Your task to perform on an android device: Open location settings Image 0: 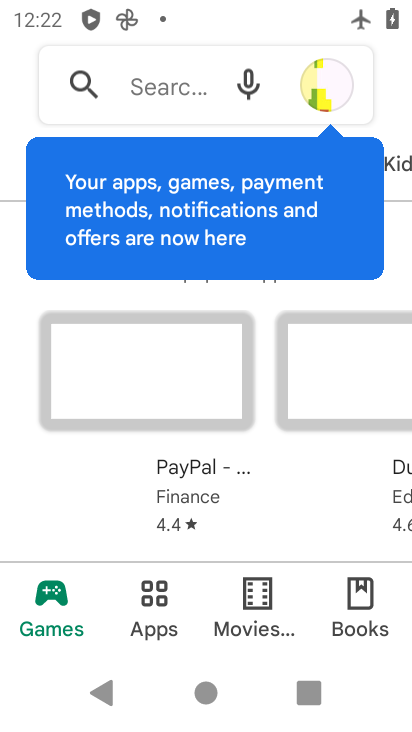
Step 0: press home button
Your task to perform on an android device: Open location settings Image 1: 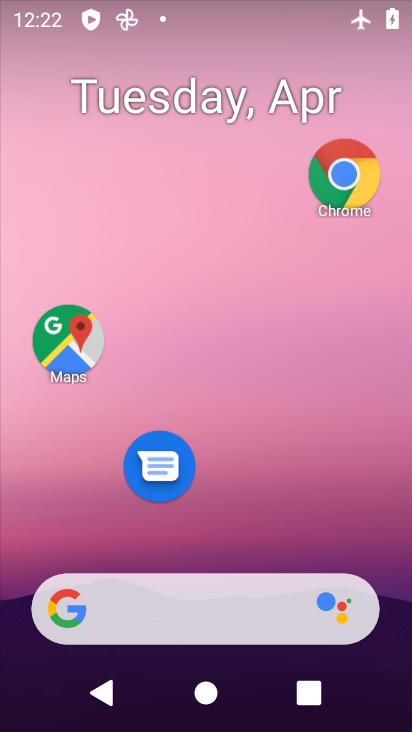
Step 1: drag from (306, 550) to (217, 0)
Your task to perform on an android device: Open location settings Image 2: 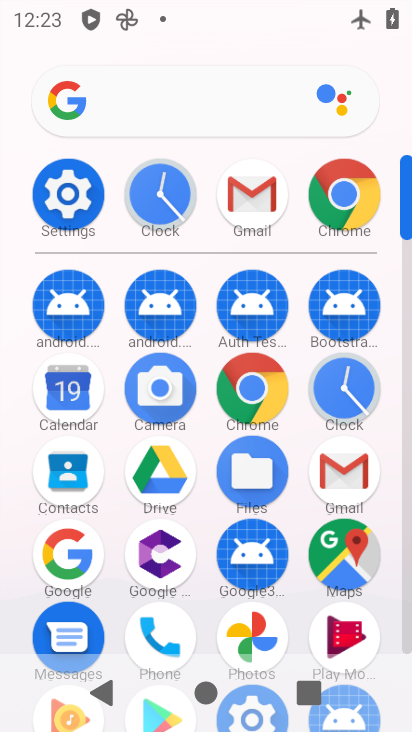
Step 2: click (88, 215)
Your task to perform on an android device: Open location settings Image 3: 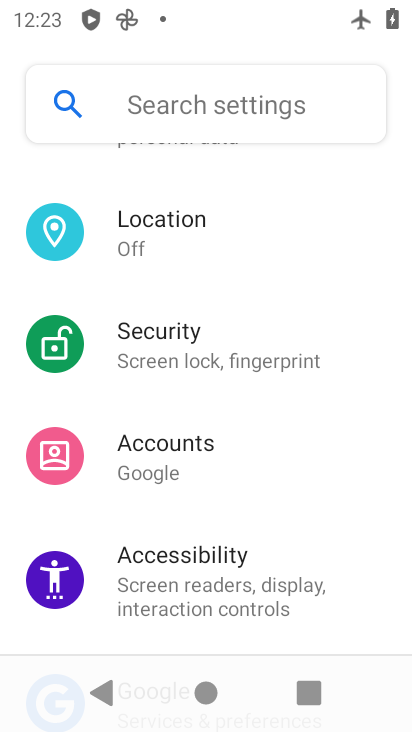
Step 3: click (196, 253)
Your task to perform on an android device: Open location settings Image 4: 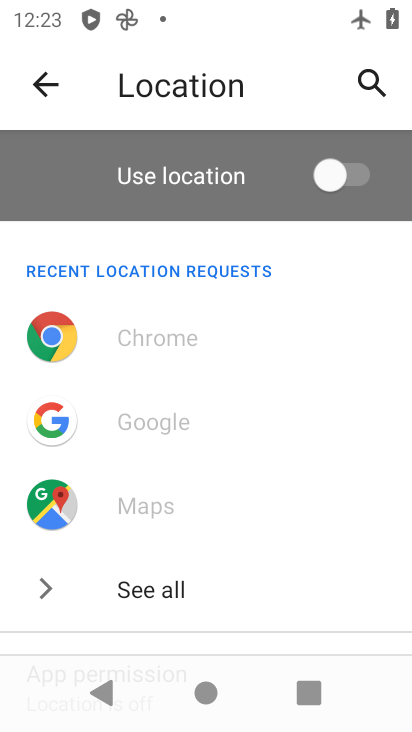
Step 4: task complete